Your task to perform on an android device: Clear the cart on walmart.com. Add bose soundlink to the cart on walmart.com, then select checkout. Image 0: 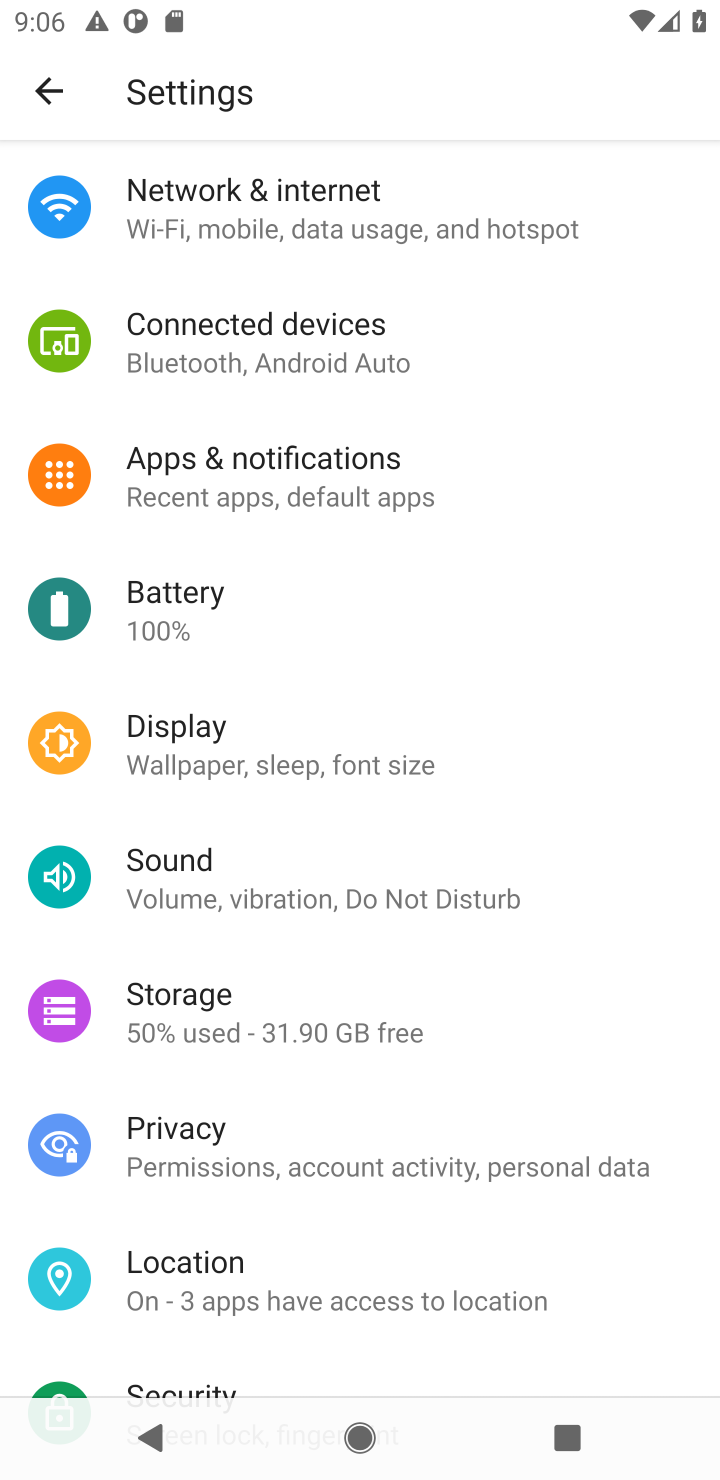
Step 0: press home button
Your task to perform on an android device: Clear the cart on walmart.com. Add bose soundlink to the cart on walmart.com, then select checkout. Image 1: 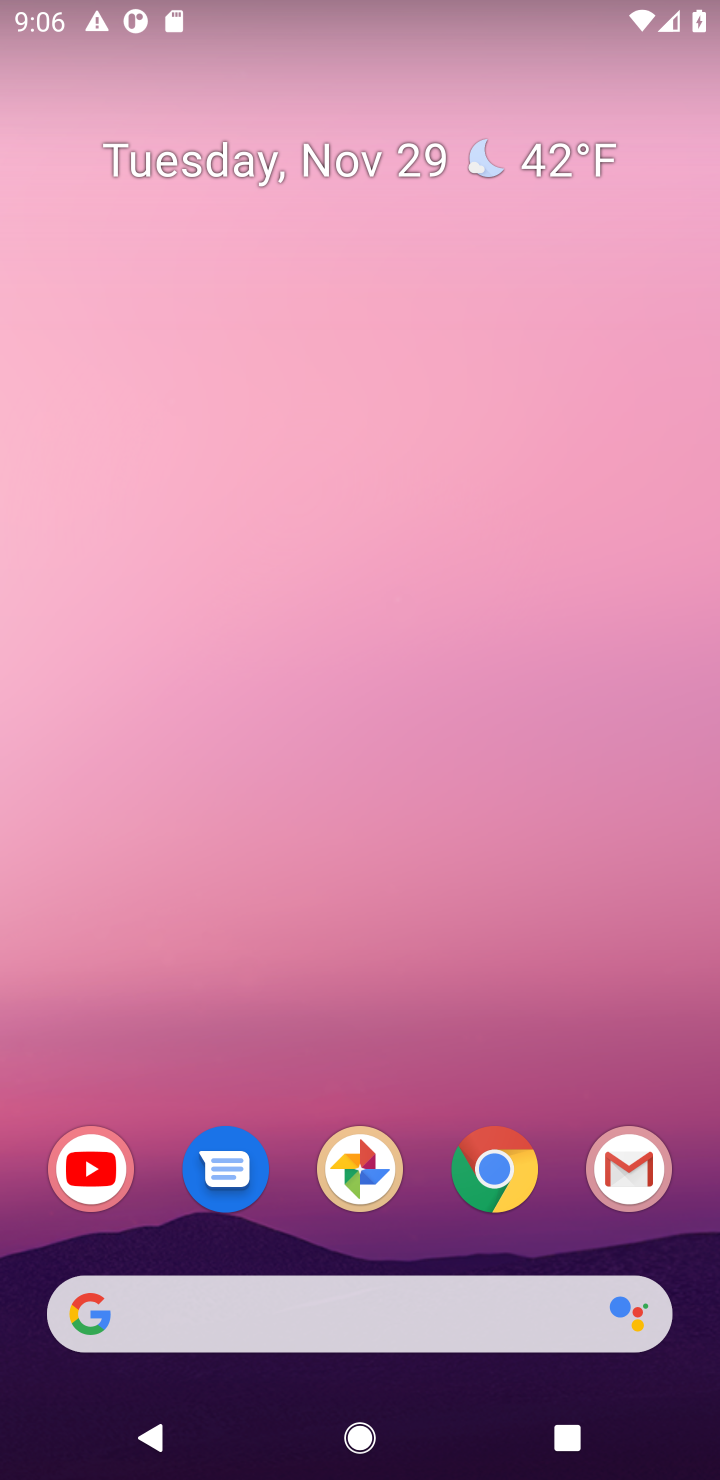
Step 1: click (379, 1293)
Your task to perform on an android device: Clear the cart on walmart.com. Add bose soundlink to the cart on walmart.com, then select checkout. Image 2: 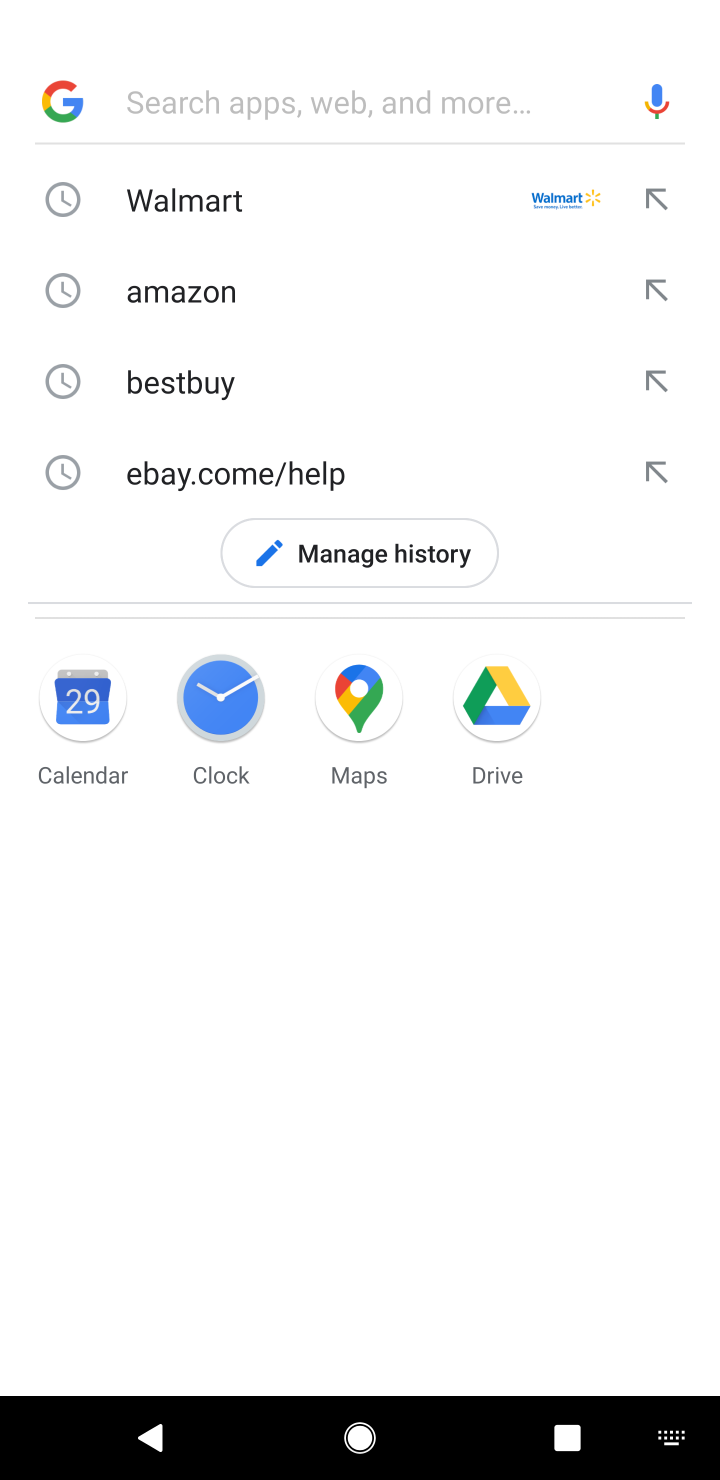
Step 2: type "walmart"
Your task to perform on an android device: Clear the cart on walmart.com. Add bose soundlink to the cart on walmart.com, then select checkout. Image 3: 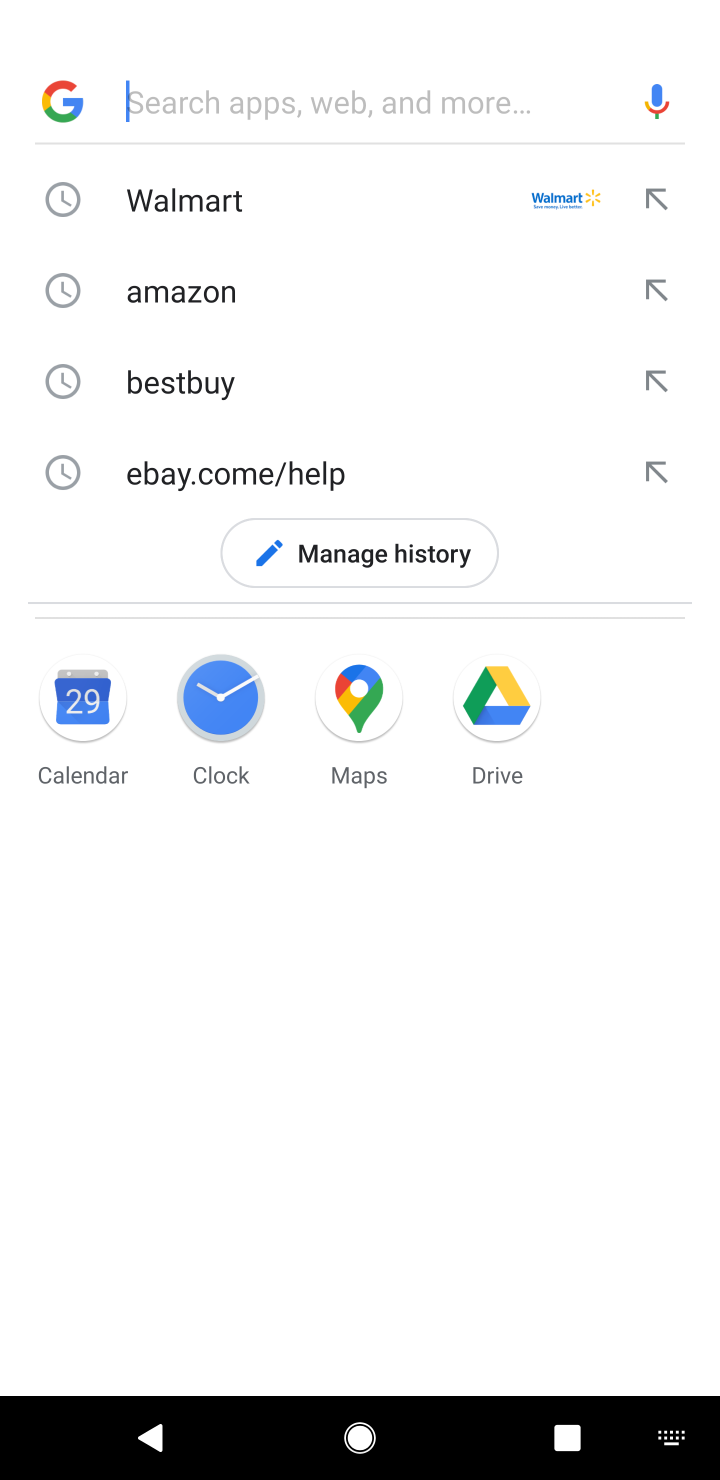
Step 3: click (254, 177)
Your task to perform on an android device: Clear the cart on walmart.com. Add bose soundlink to the cart on walmart.com, then select checkout. Image 4: 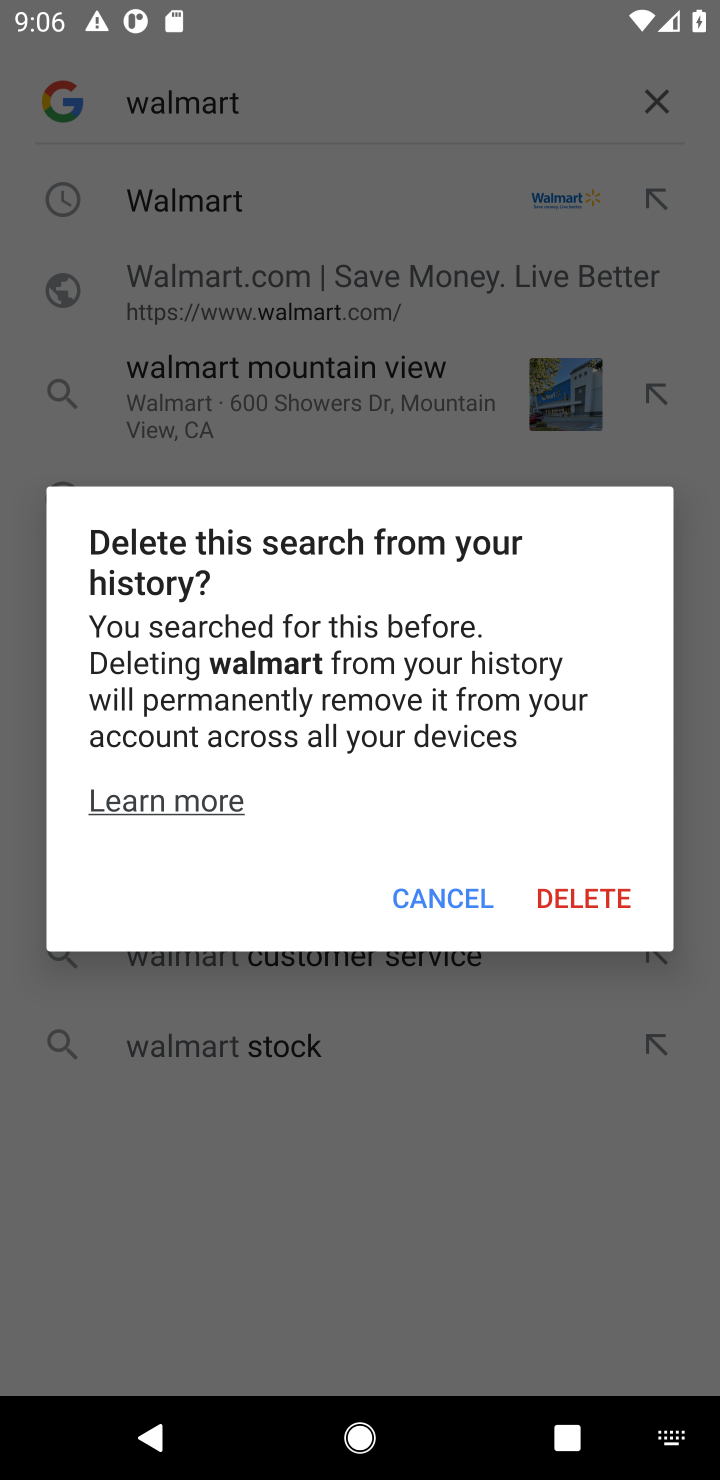
Step 4: click (438, 926)
Your task to perform on an android device: Clear the cart on walmart.com. Add bose soundlink to the cart on walmart.com, then select checkout. Image 5: 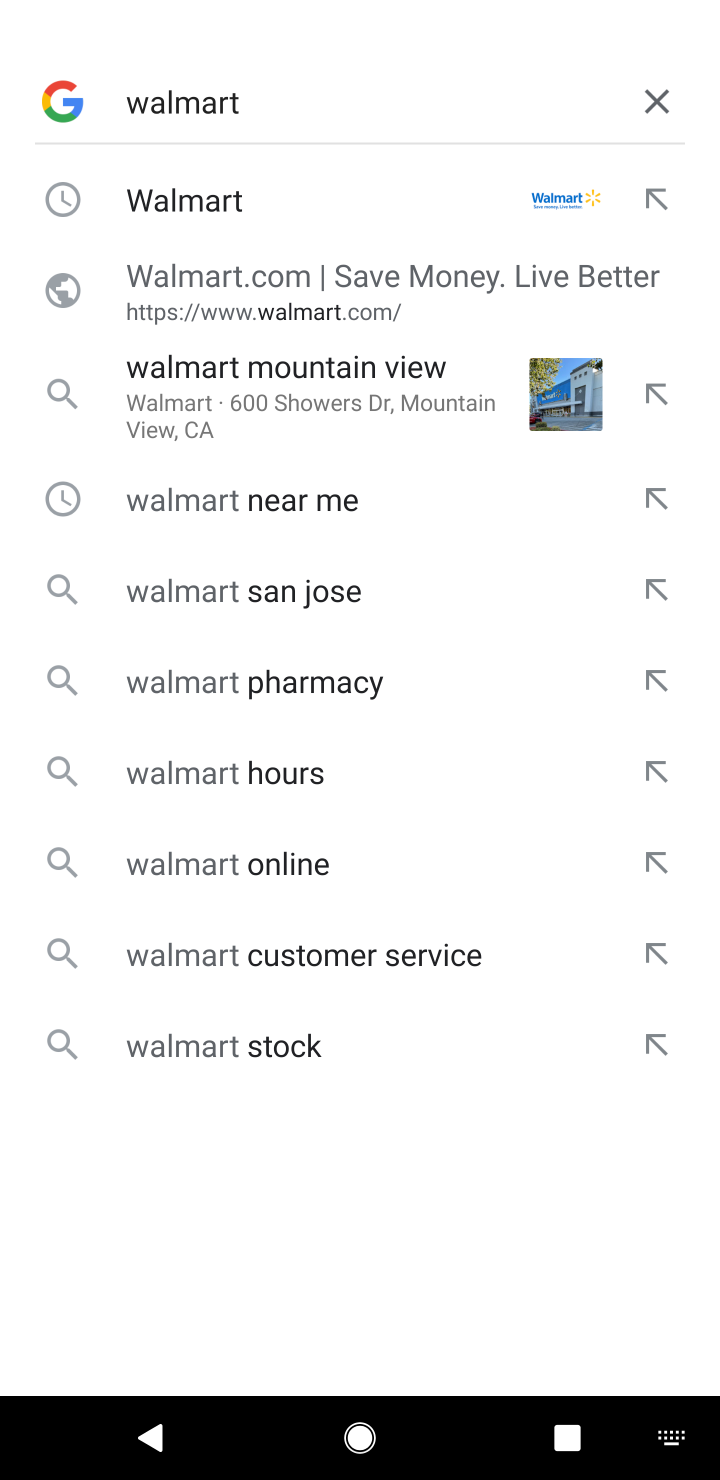
Step 5: click (165, 216)
Your task to perform on an android device: Clear the cart on walmart.com. Add bose soundlink to the cart on walmart.com, then select checkout. Image 6: 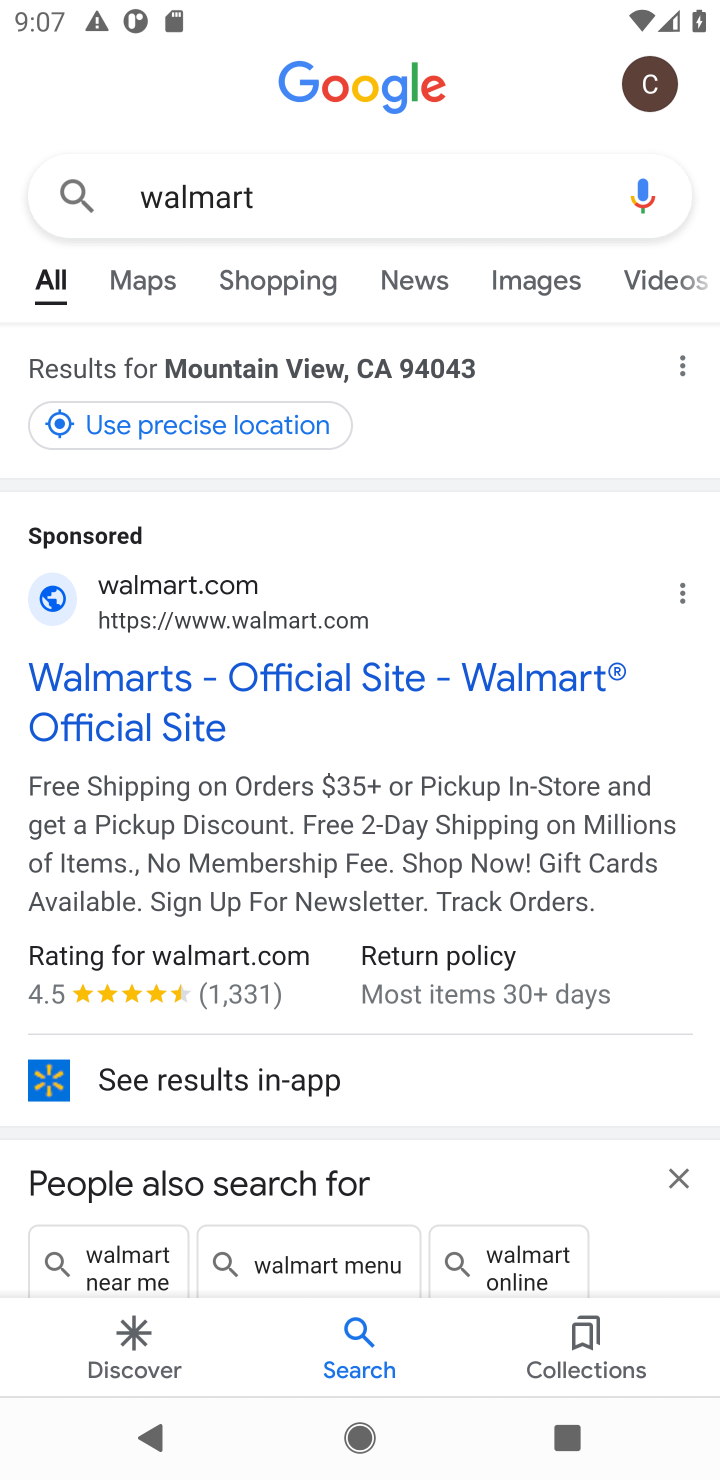
Step 6: click (466, 685)
Your task to perform on an android device: Clear the cart on walmart.com. Add bose soundlink to the cart on walmart.com, then select checkout. Image 7: 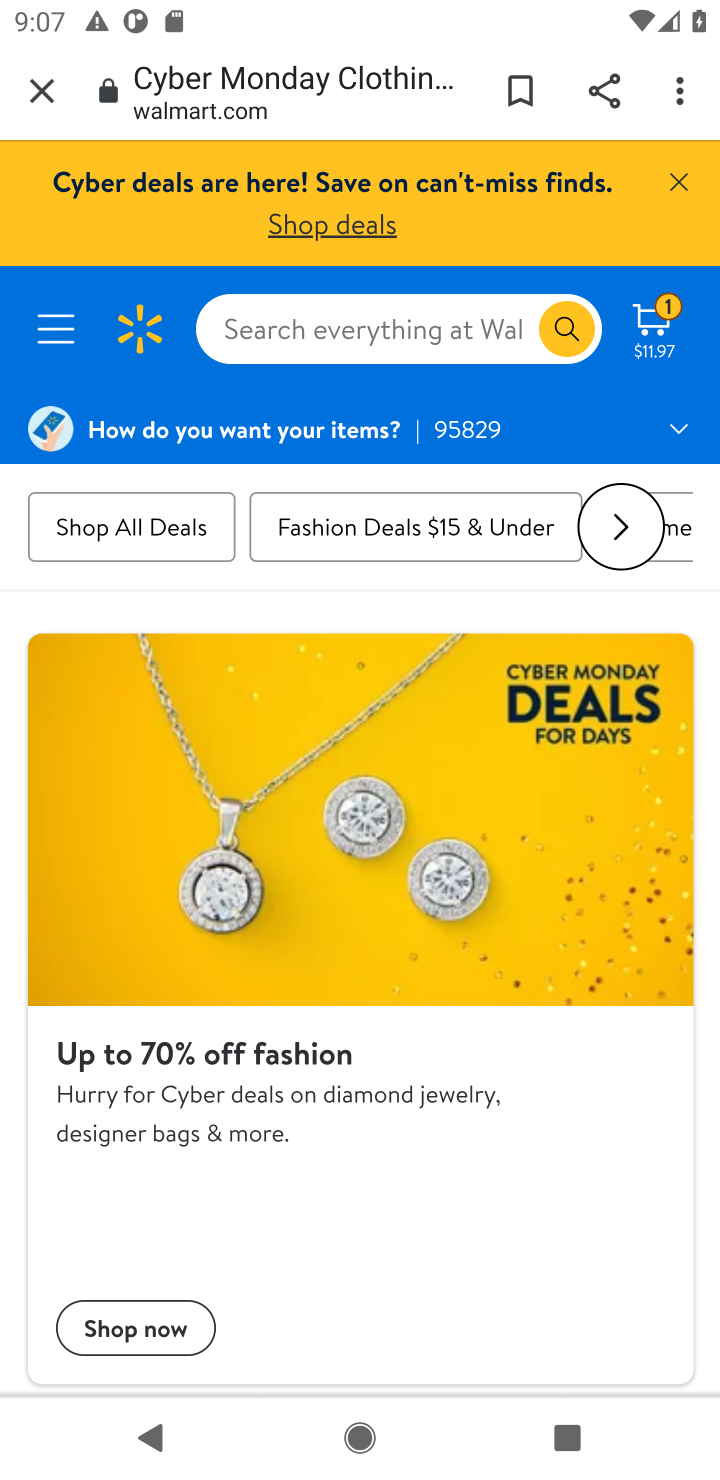
Step 7: click (277, 337)
Your task to perform on an android device: Clear the cart on walmart.com. Add bose soundlink to the cart on walmart.com, then select checkout. Image 8: 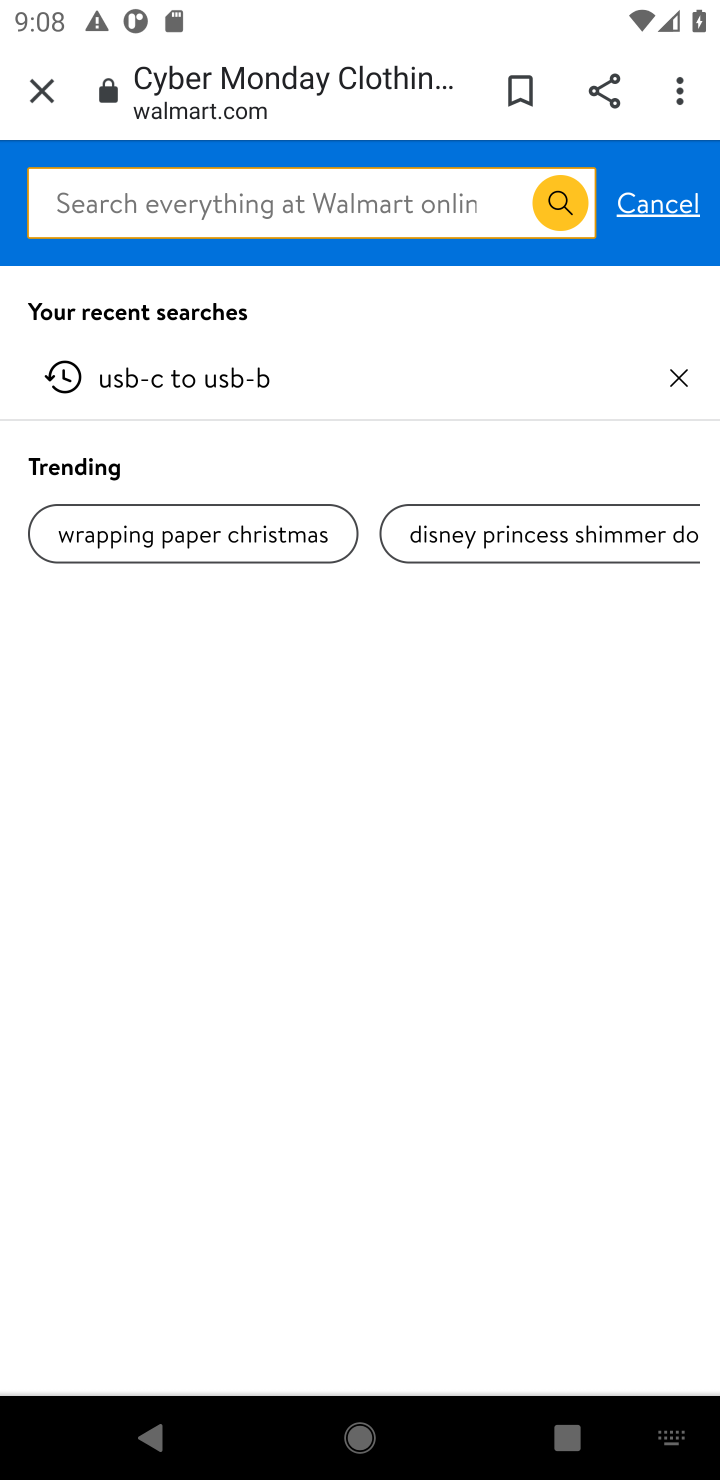
Step 8: type "bose soundlink"
Your task to perform on an android device: Clear the cart on walmart.com. Add bose soundlink to the cart on walmart.com, then select checkout. Image 9: 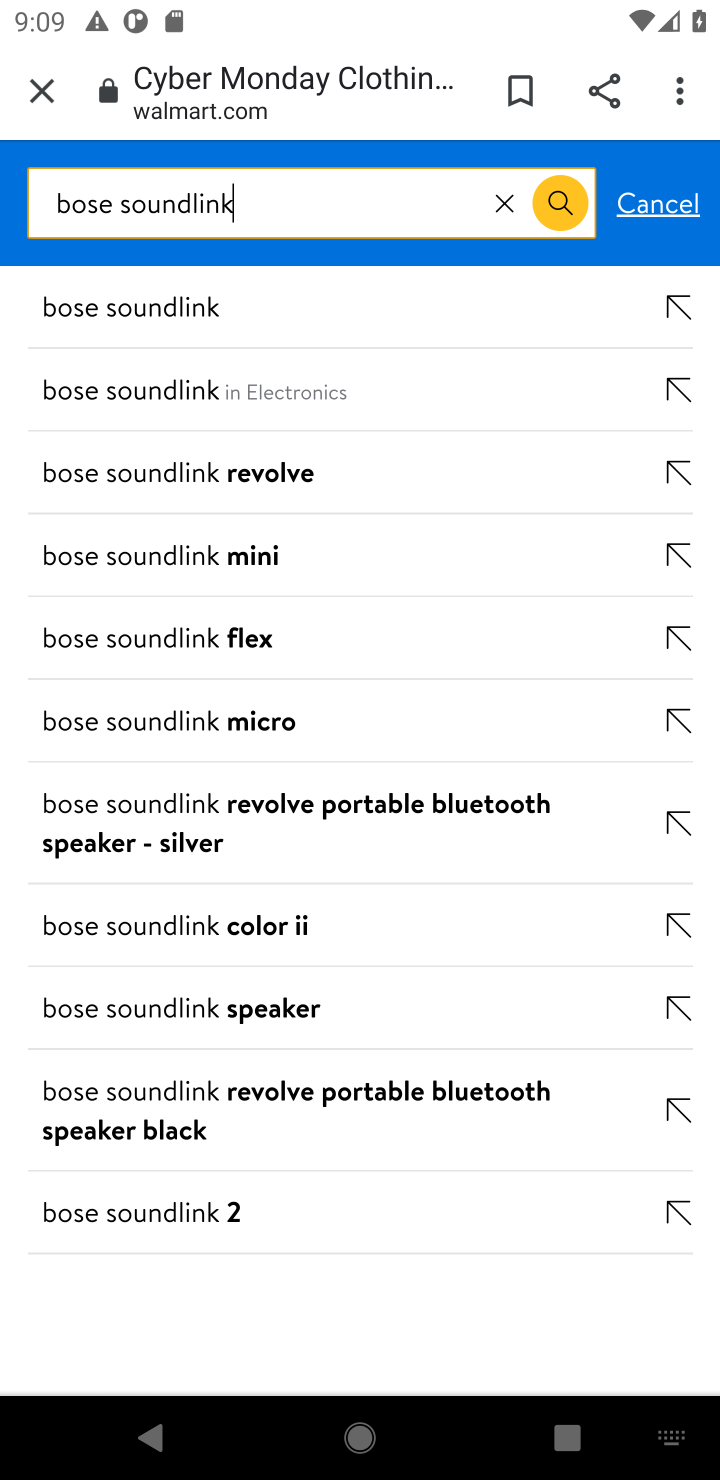
Step 9: click (219, 293)
Your task to perform on an android device: Clear the cart on walmart.com. Add bose soundlink to the cart on walmart.com, then select checkout. Image 10: 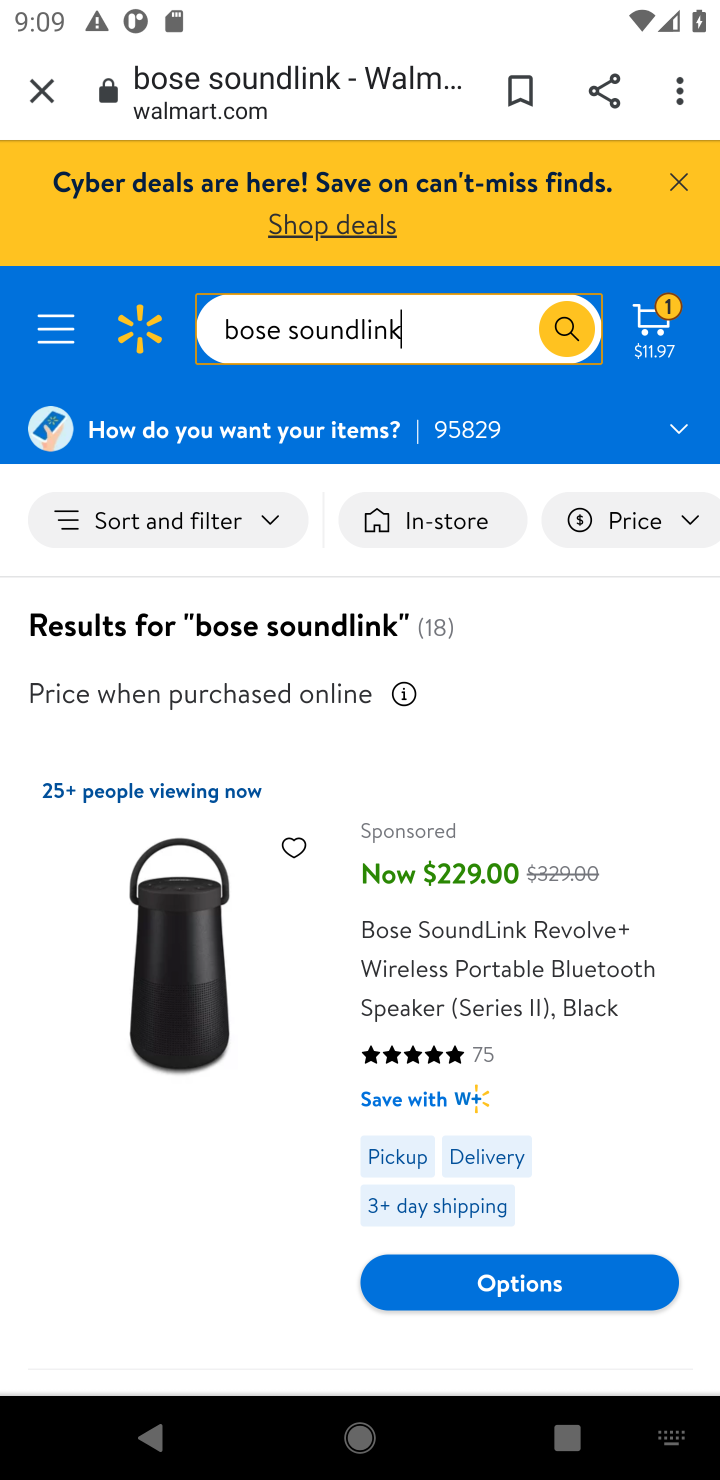
Step 10: click (441, 1268)
Your task to perform on an android device: Clear the cart on walmart.com. Add bose soundlink to the cart on walmart.com, then select checkout. Image 11: 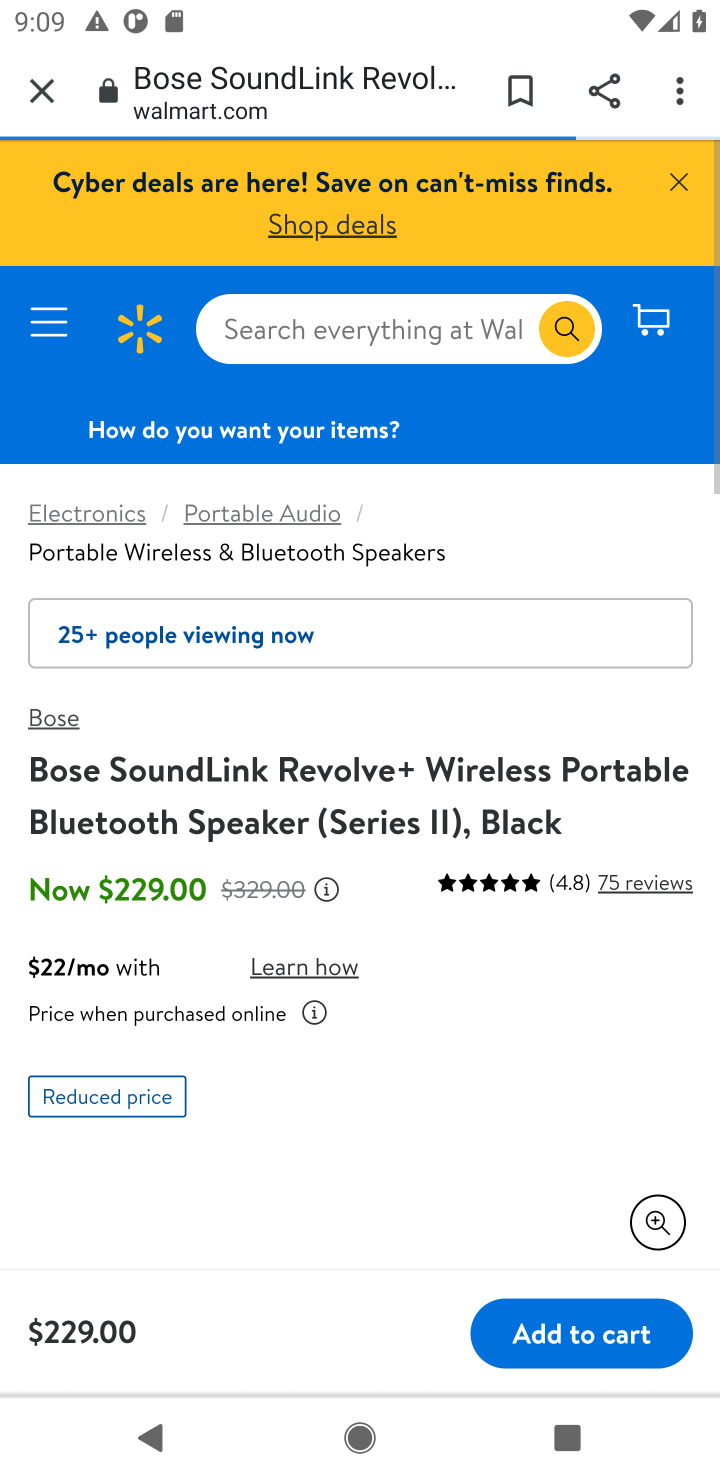
Step 11: click (441, 1268)
Your task to perform on an android device: Clear the cart on walmart.com. Add bose soundlink to the cart on walmart.com, then select checkout. Image 12: 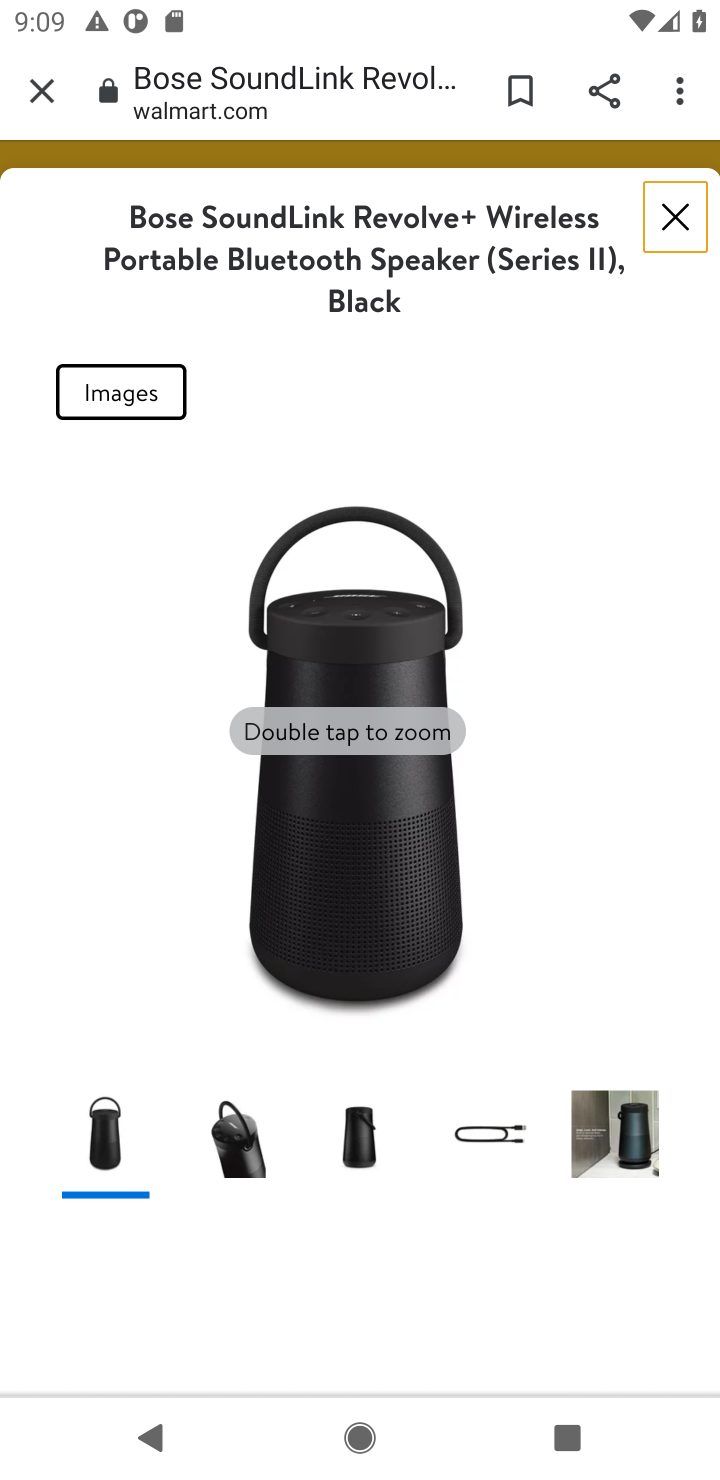
Step 12: task complete